Your task to perform on an android device: delete the emails in spam in the gmail app Image 0: 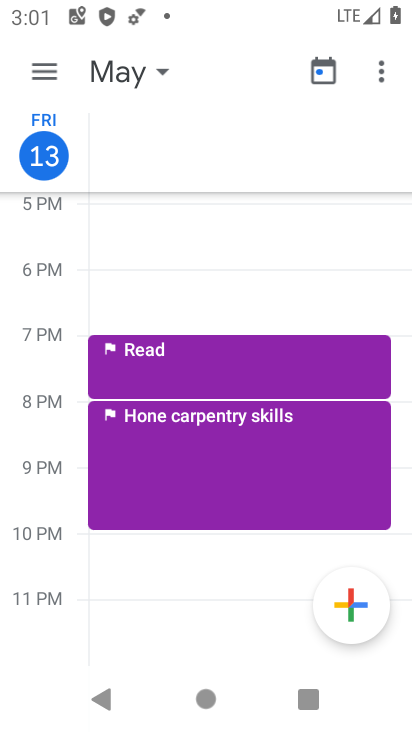
Step 0: press home button
Your task to perform on an android device: delete the emails in spam in the gmail app Image 1: 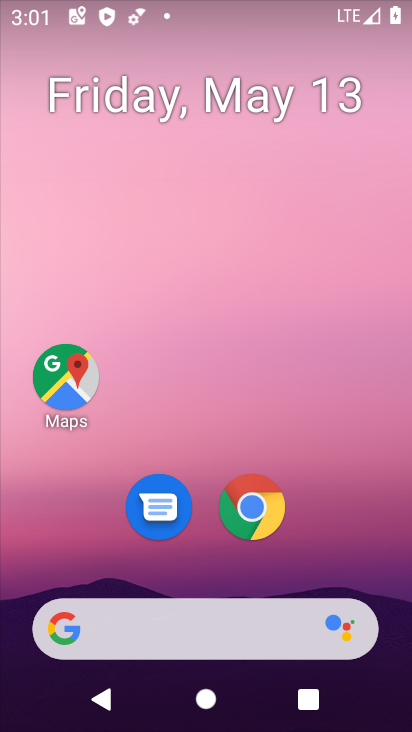
Step 1: drag from (400, 390) to (395, 22)
Your task to perform on an android device: delete the emails in spam in the gmail app Image 2: 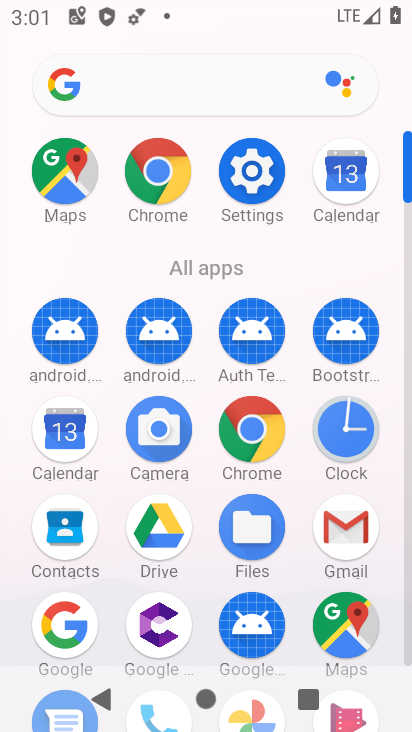
Step 2: click (323, 523)
Your task to perform on an android device: delete the emails in spam in the gmail app Image 3: 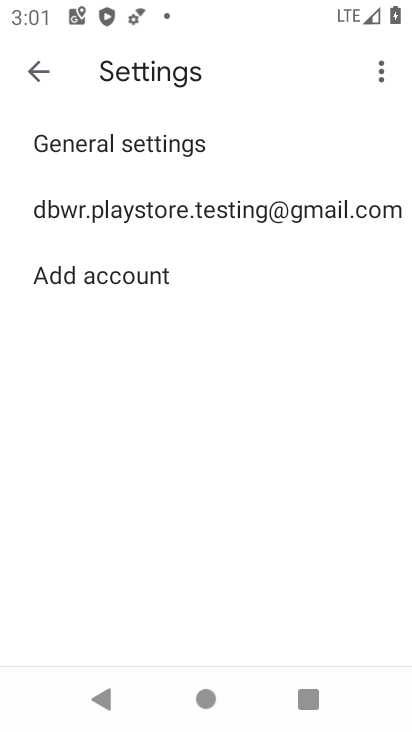
Step 3: click (167, 210)
Your task to perform on an android device: delete the emails in spam in the gmail app Image 4: 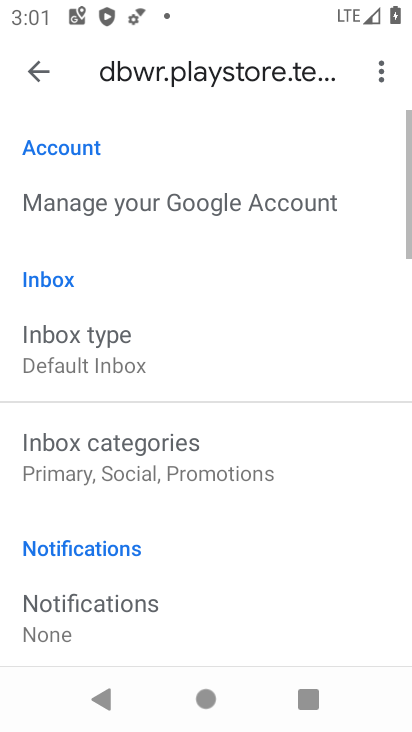
Step 4: drag from (113, 495) to (109, 252)
Your task to perform on an android device: delete the emails in spam in the gmail app Image 5: 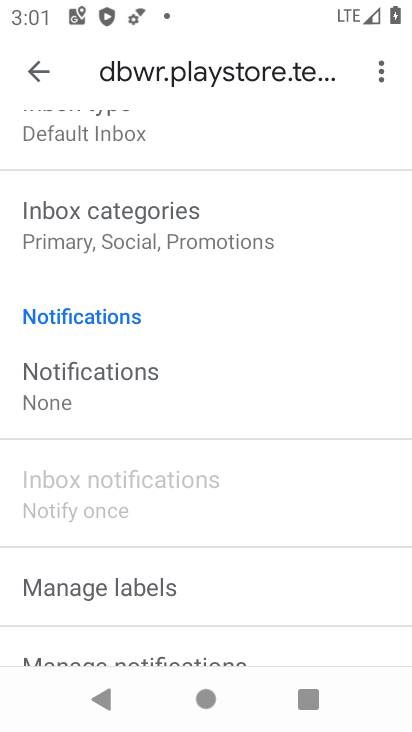
Step 5: click (39, 68)
Your task to perform on an android device: delete the emails in spam in the gmail app Image 6: 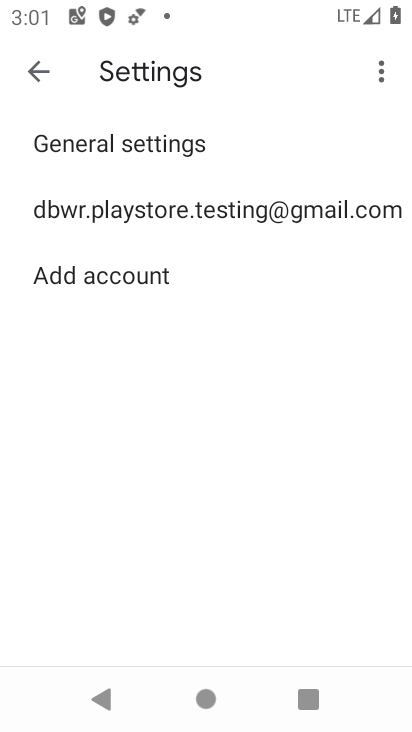
Step 6: click (39, 68)
Your task to perform on an android device: delete the emails in spam in the gmail app Image 7: 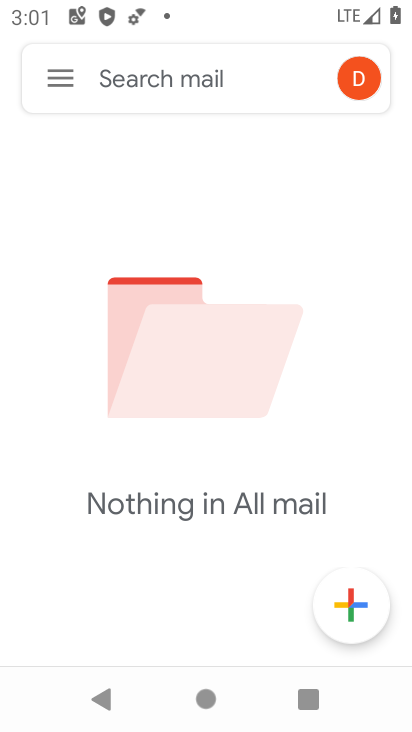
Step 7: click (39, 68)
Your task to perform on an android device: delete the emails in spam in the gmail app Image 8: 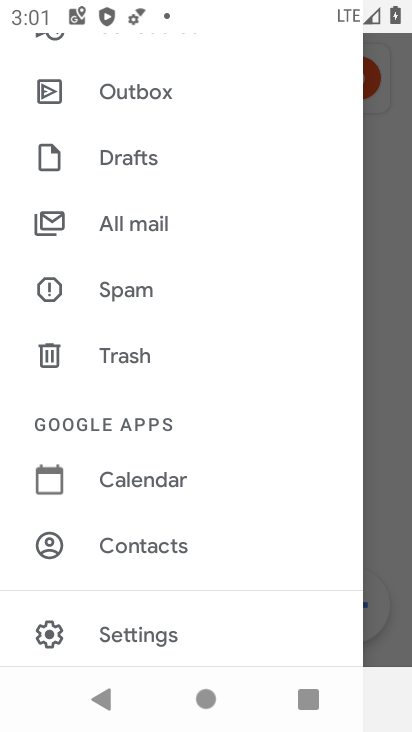
Step 8: click (143, 292)
Your task to perform on an android device: delete the emails in spam in the gmail app Image 9: 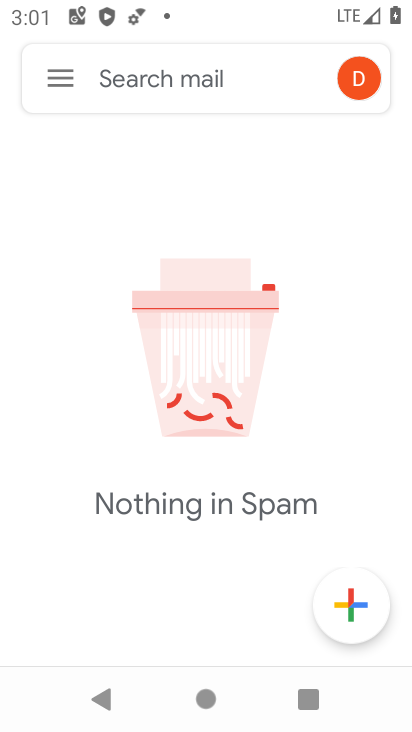
Step 9: task complete